Your task to perform on an android device: open chrome and create a bookmark for the current page Image 0: 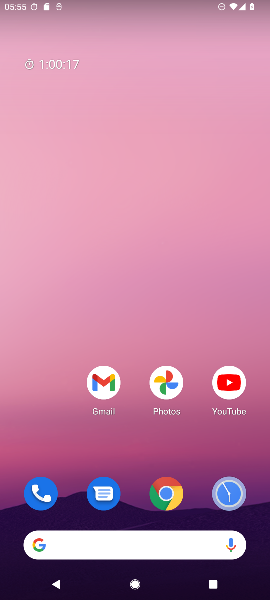
Step 0: press home button
Your task to perform on an android device: open chrome and create a bookmark for the current page Image 1: 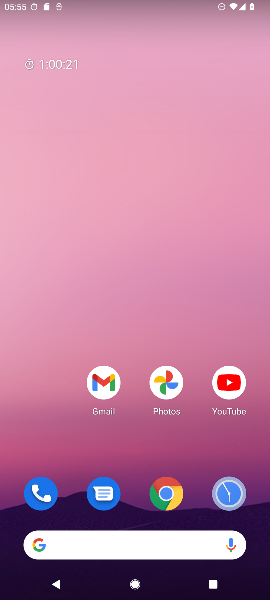
Step 1: drag from (61, 459) to (47, 136)
Your task to perform on an android device: open chrome and create a bookmark for the current page Image 2: 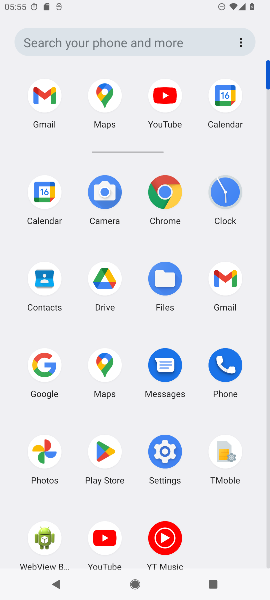
Step 2: click (162, 191)
Your task to perform on an android device: open chrome and create a bookmark for the current page Image 3: 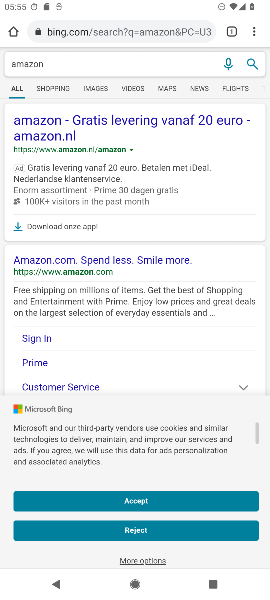
Step 3: click (255, 33)
Your task to perform on an android device: open chrome and create a bookmark for the current page Image 4: 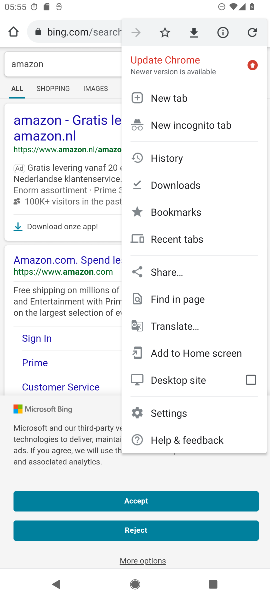
Step 4: click (164, 30)
Your task to perform on an android device: open chrome and create a bookmark for the current page Image 5: 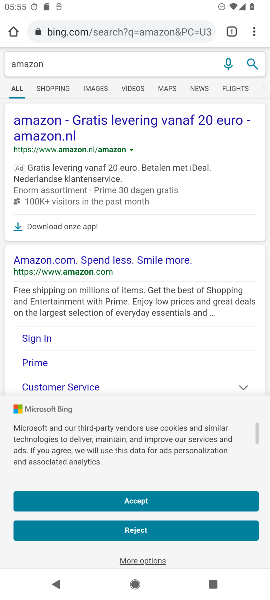
Step 5: task complete